Your task to perform on an android device: open app "LinkedIn" (install if not already installed) and go to login screen Image 0: 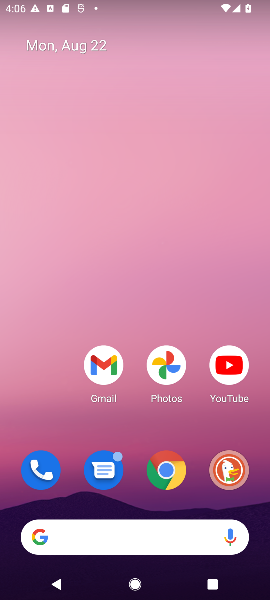
Step 0: drag from (164, 512) to (190, 96)
Your task to perform on an android device: open app "LinkedIn" (install if not already installed) and go to login screen Image 1: 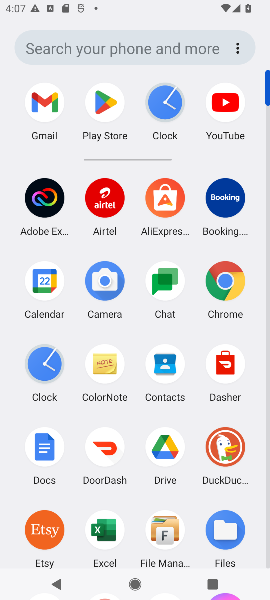
Step 1: click (95, 92)
Your task to perform on an android device: open app "LinkedIn" (install if not already installed) and go to login screen Image 2: 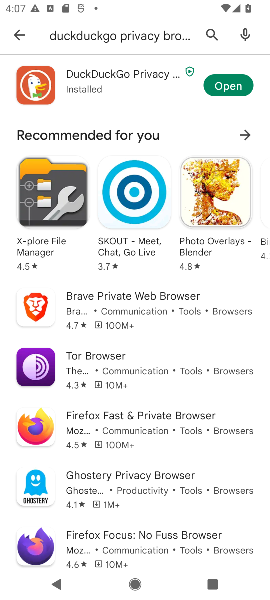
Step 2: click (16, 35)
Your task to perform on an android device: open app "LinkedIn" (install if not already installed) and go to login screen Image 3: 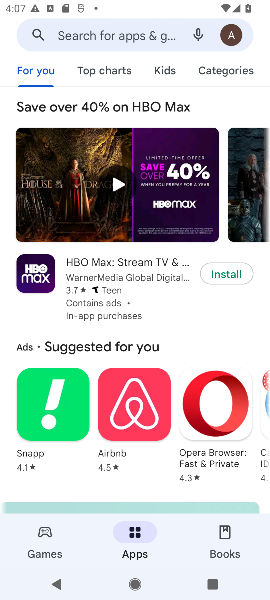
Step 3: click (96, 33)
Your task to perform on an android device: open app "LinkedIn" (install if not already installed) and go to login screen Image 4: 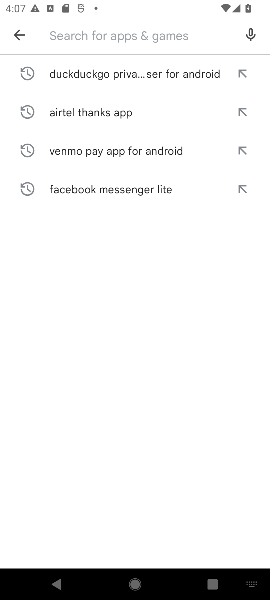
Step 4: type "LinkedIn "
Your task to perform on an android device: open app "LinkedIn" (install if not already installed) and go to login screen Image 5: 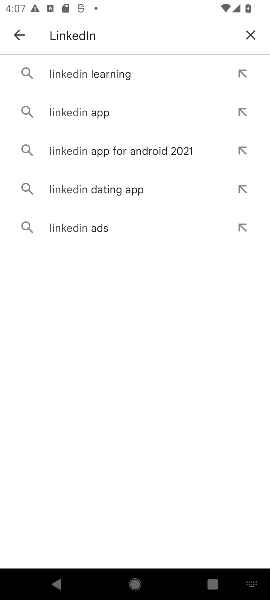
Step 5: click (92, 108)
Your task to perform on an android device: open app "LinkedIn" (install if not already installed) and go to login screen Image 6: 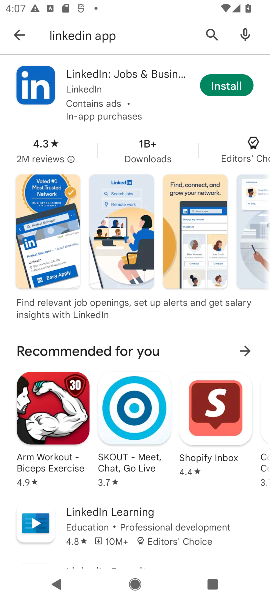
Step 6: click (219, 81)
Your task to perform on an android device: open app "LinkedIn" (install if not already installed) and go to login screen Image 7: 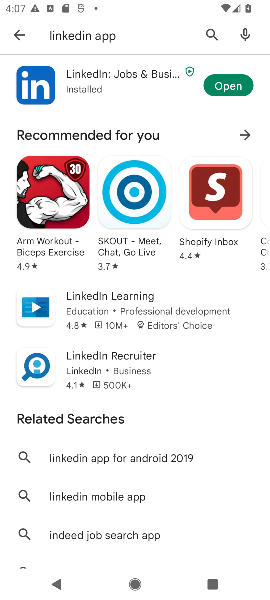
Step 7: click (225, 76)
Your task to perform on an android device: open app "LinkedIn" (install if not already installed) and go to login screen Image 8: 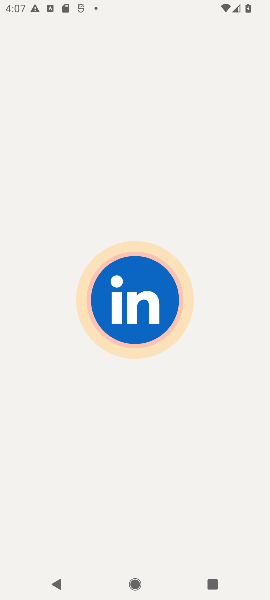
Step 8: task complete